Your task to perform on an android device: Play the last video I watched on Youtube Image 0: 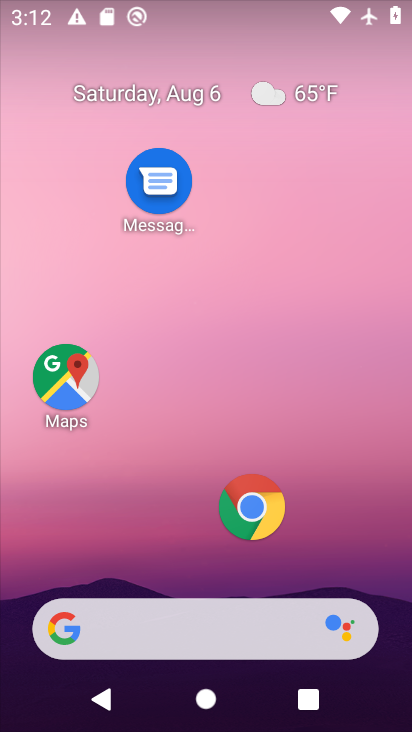
Step 0: drag from (164, 586) to (247, 27)
Your task to perform on an android device: Play the last video I watched on Youtube Image 1: 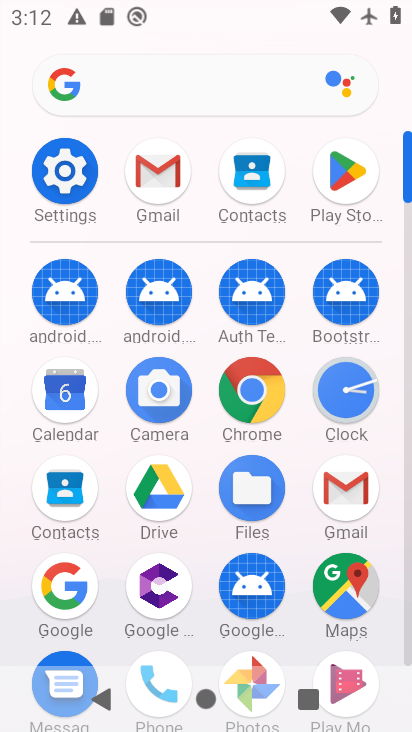
Step 1: drag from (299, 563) to (313, 11)
Your task to perform on an android device: Play the last video I watched on Youtube Image 2: 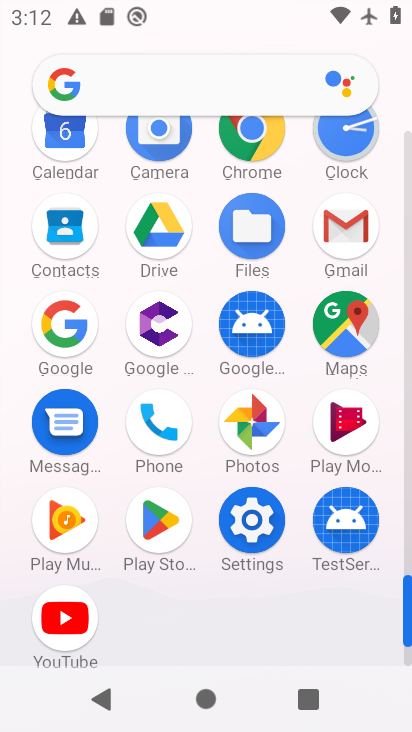
Step 2: click (52, 635)
Your task to perform on an android device: Play the last video I watched on Youtube Image 3: 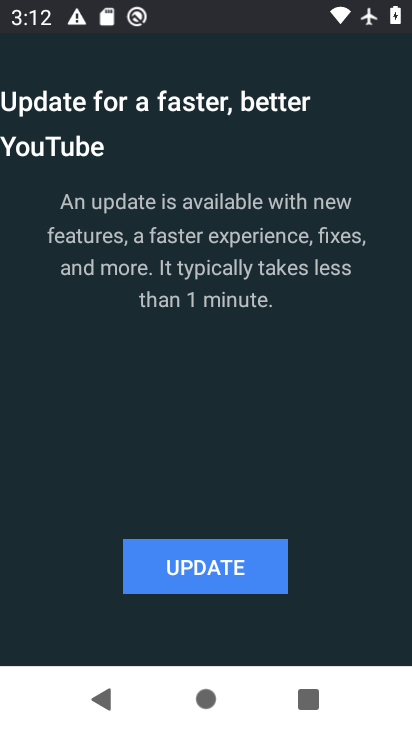
Step 3: click (203, 569)
Your task to perform on an android device: Play the last video I watched on Youtube Image 4: 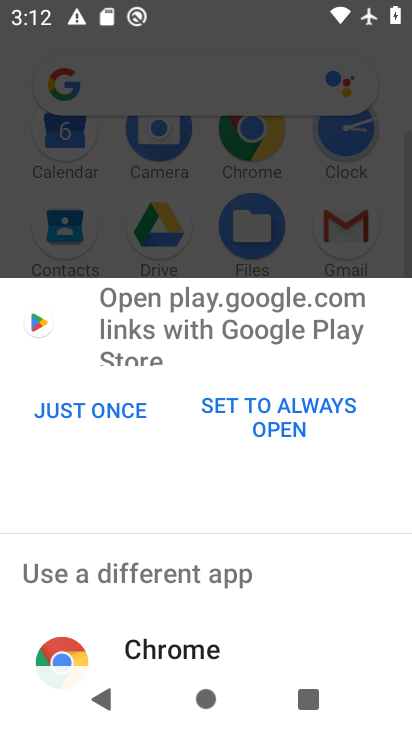
Step 4: click (83, 401)
Your task to perform on an android device: Play the last video I watched on Youtube Image 5: 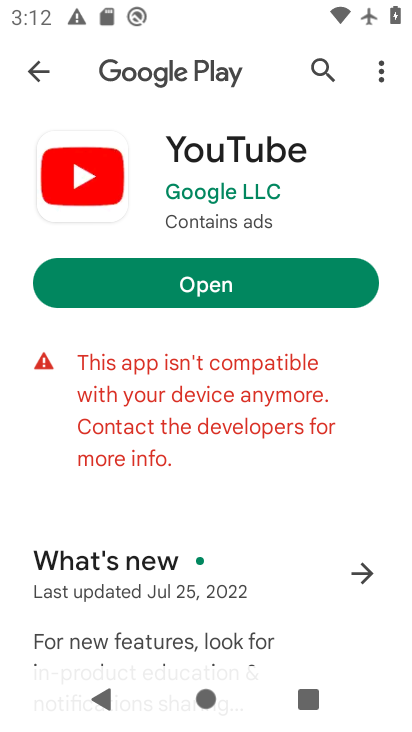
Step 5: click (221, 277)
Your task to perform on an android device: Play the last video I watched on Youtube Image 6: 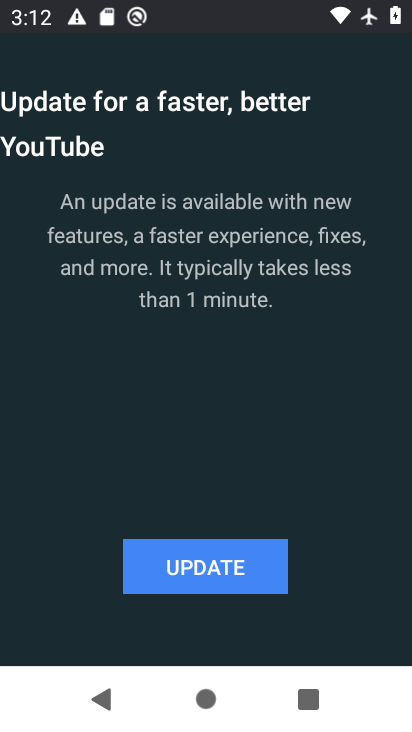
Step 6: click (252, 573)
Your task to perform on an android device: Play the last video I watched on Youtube Image 7: 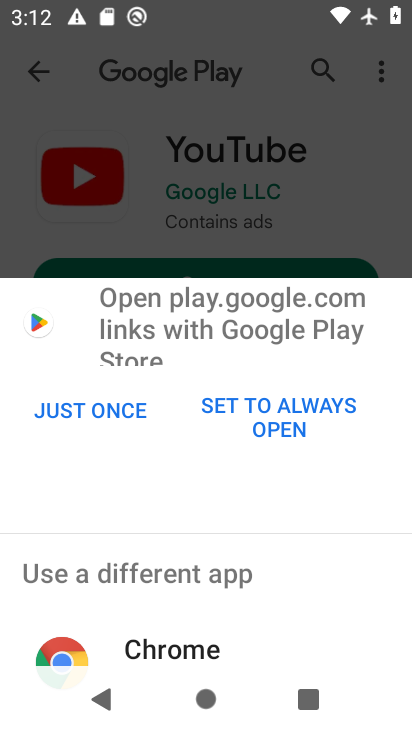
Step 7: click (143, 634)
Your task to perform on an android device: Play the last video I watched on Youtube Image 8: 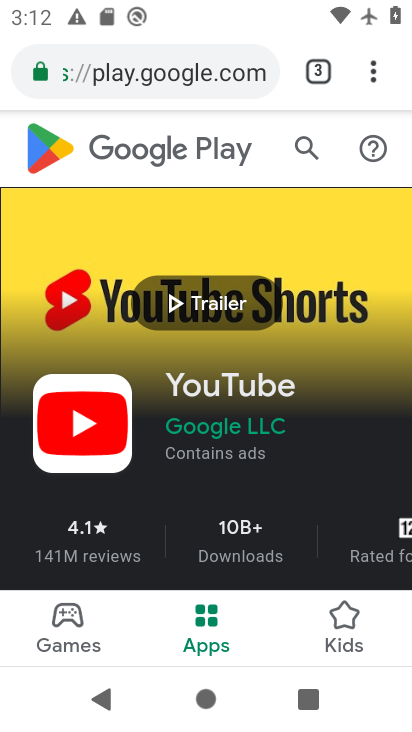
Step 8: task complete